Your task to perform on an android device: Open Google Maps and go to "Timeline" Image 0: 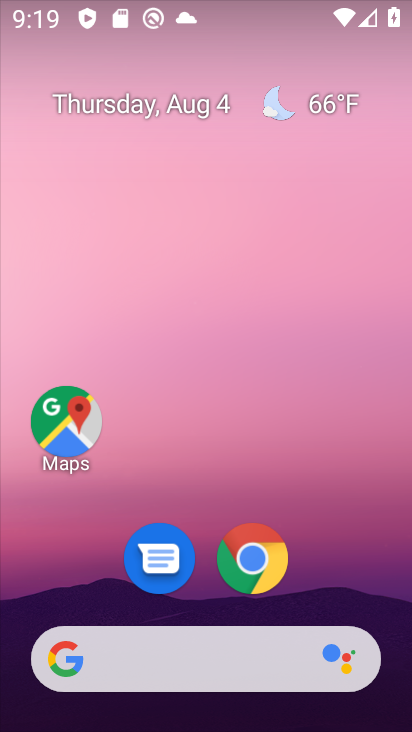
Step 0: drag from (329, 540) to (320, 54)
Your task to perform on an android device: Open Google Maps and go to "Timeline" Image 1: 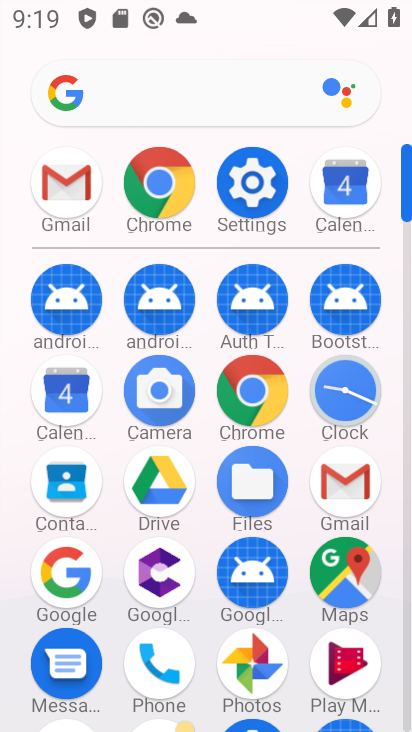
Step 1: click (344, 558)
Your task to perform on an android device: Open Google Maps and go to "Timeline" Image 2: 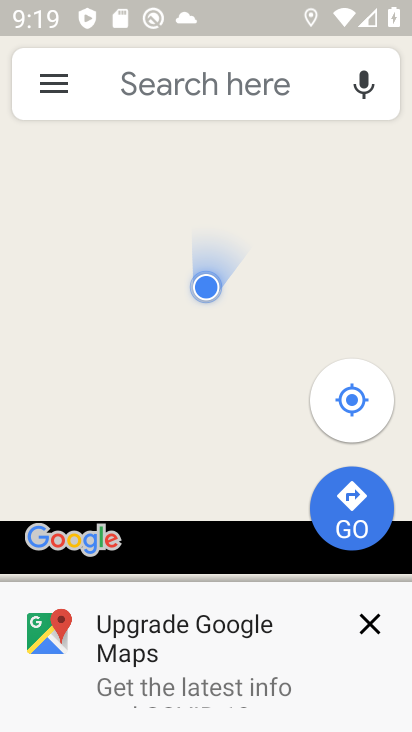
Step 2: click (43, 68)
Your task to perform on an android device: Open Google Maps and go to "Timeline" Image 3: 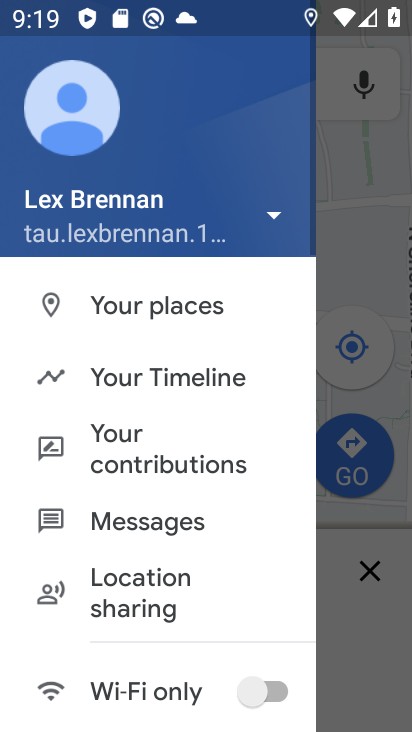
Step 3: click (183, 369)
Your task to perform on an android device: Open Google Maps and go to "Timeline" Image 4: 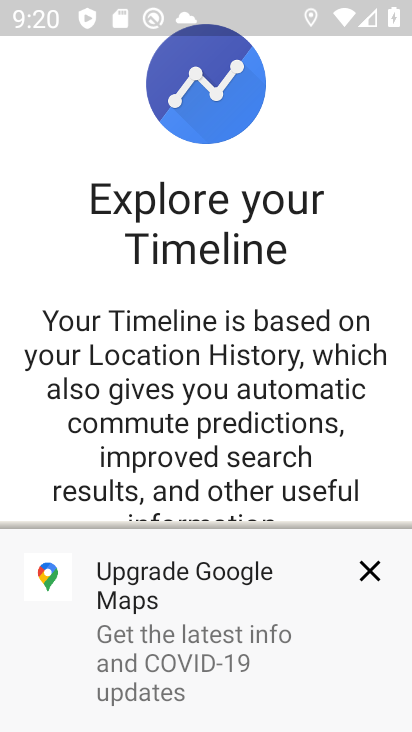
Step 4: drag from (262, 454) to (324, 55)
Your task to perform on an android device: Open Google Maps and go to "Timeline" Image 5: 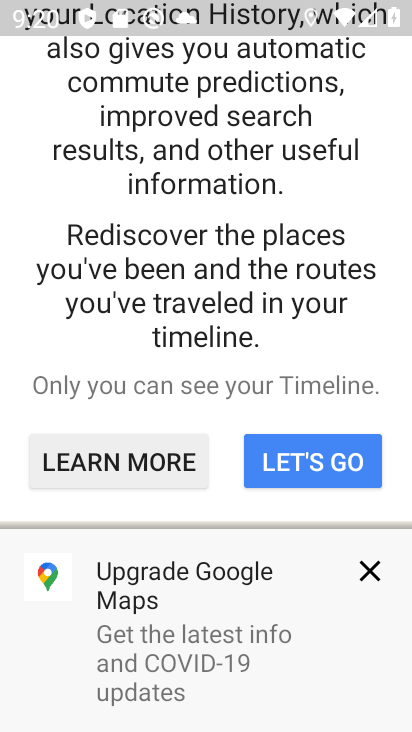
Step 5: click (314, 465)
Your task to perform on an android device: Open Google Maps and go to "Timeline" Image 6: 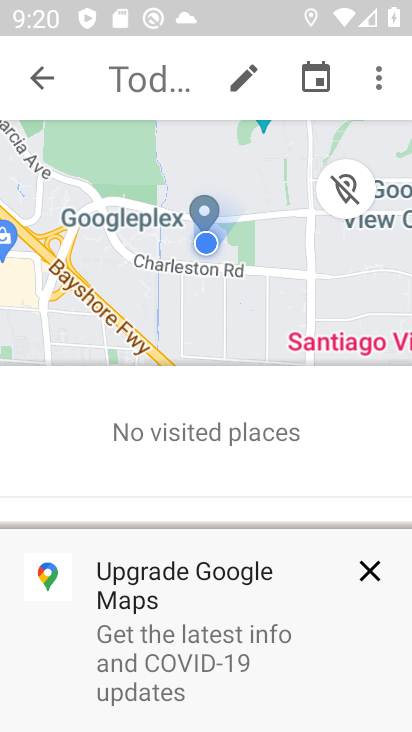
Step 6: task complete